Your task to perform on an android device: When is my next meeting? Image 0: 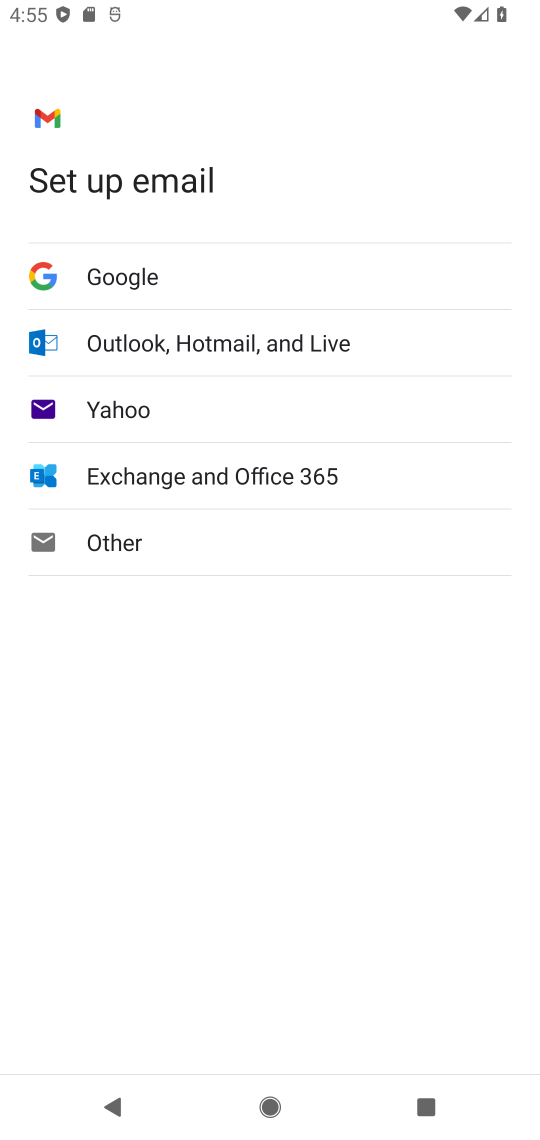
Step 0: press home button
Your task to perform on an android device: When is my next meeting? Image 1: 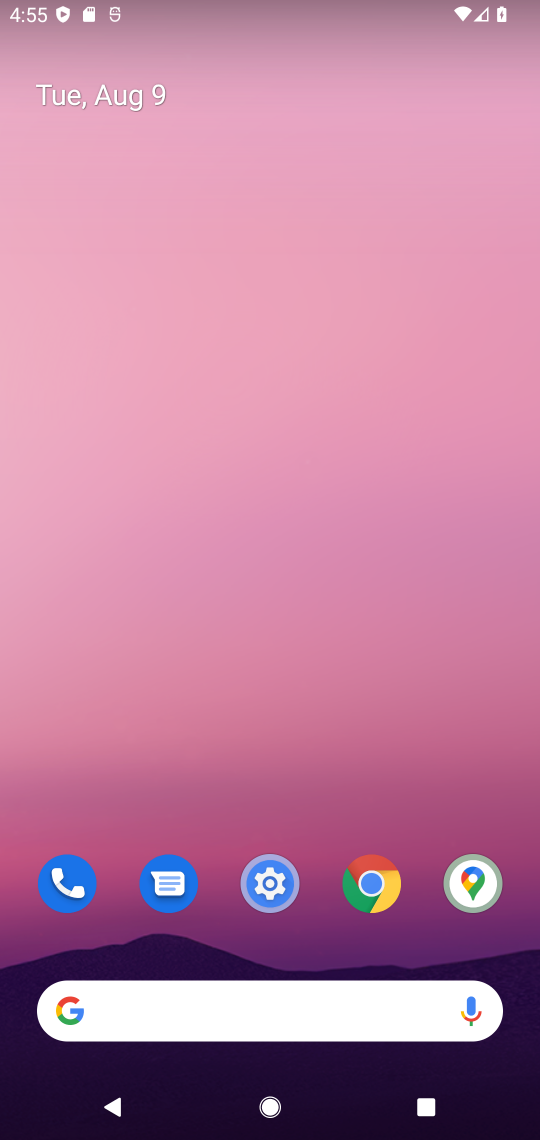
Step 1: drag from (241, 783) to (239, 37)
Your task to perform on an android device: When is my next meeting? Image 2: 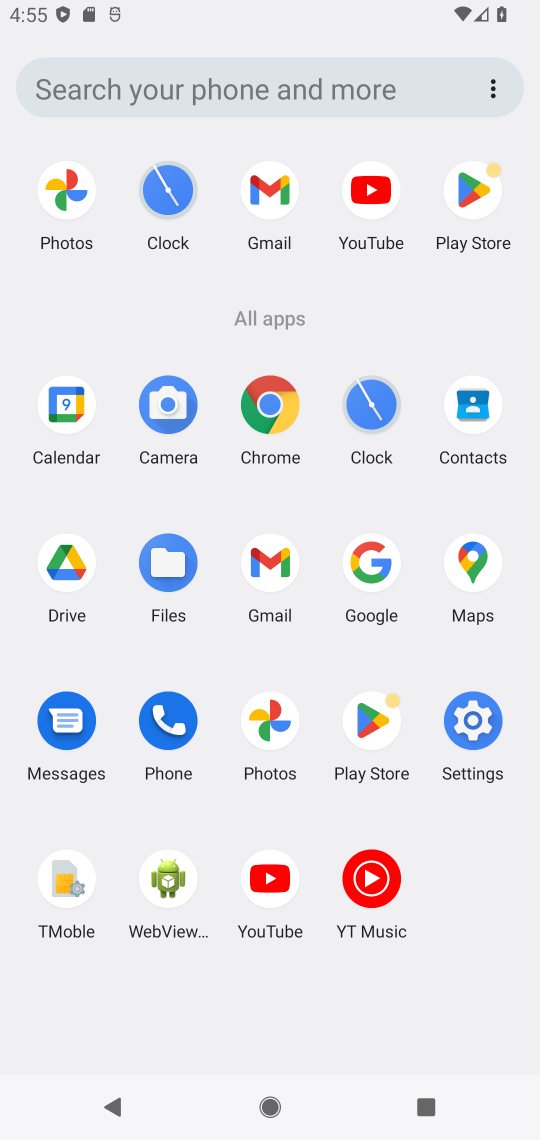
Step 2: click (88, 420)
Your task to perform on an android device: When is my next meeting? Image 3: 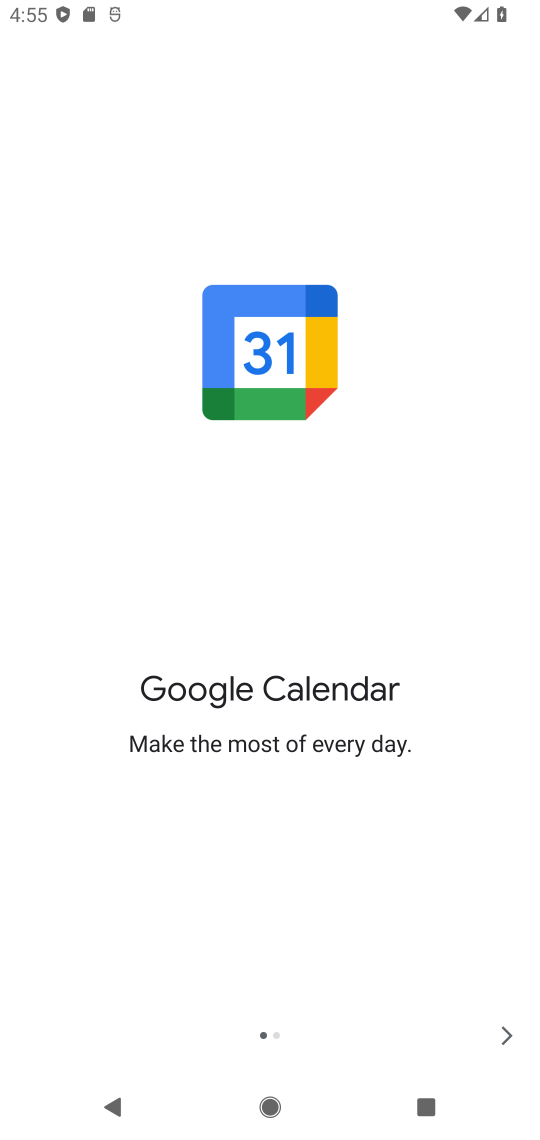
Step 3: click (500, 1023)
Your task to perform on an android device: When is my next meeting? Image 4: 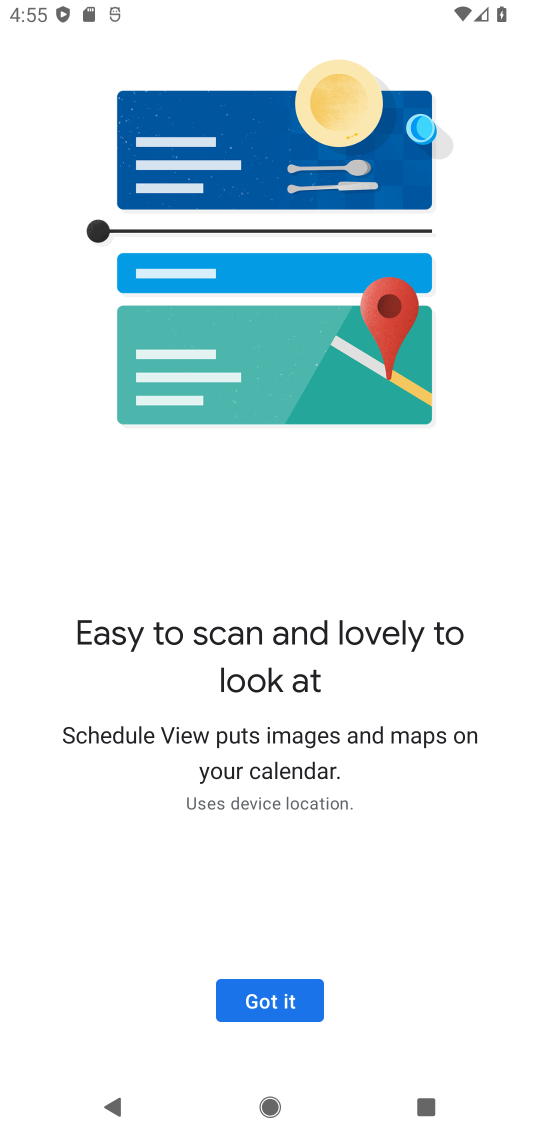
Step 4: click (293, 989)
Your task to perform on an android device: When is my next meeting? Image 5: 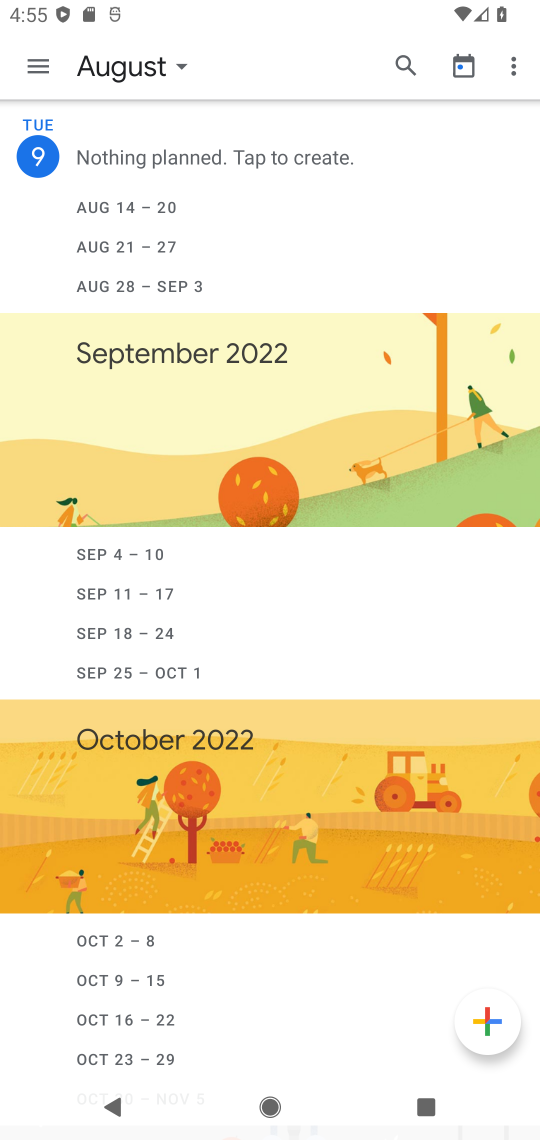
Step 5: click (187, 74)
Your task to perform on an android device: When is my next meeting? Image 6: 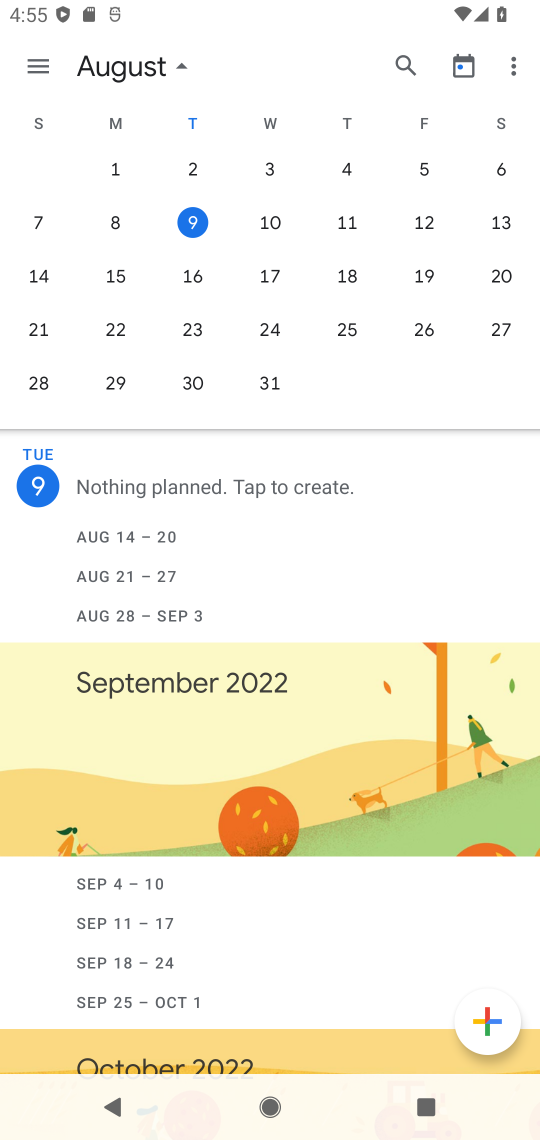
Step 6: click (277, 211)
Your task to perform on an android device: When is my next meeting? Image 7: 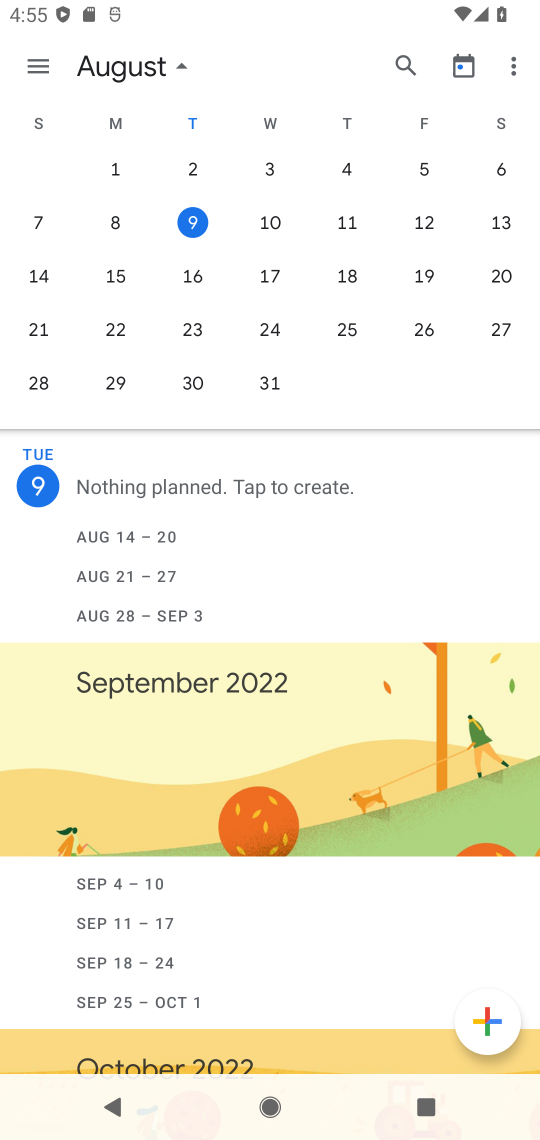
Step 7: click (357, 218)
Your task to perform on an android device: When is my next meeting? Image 8: 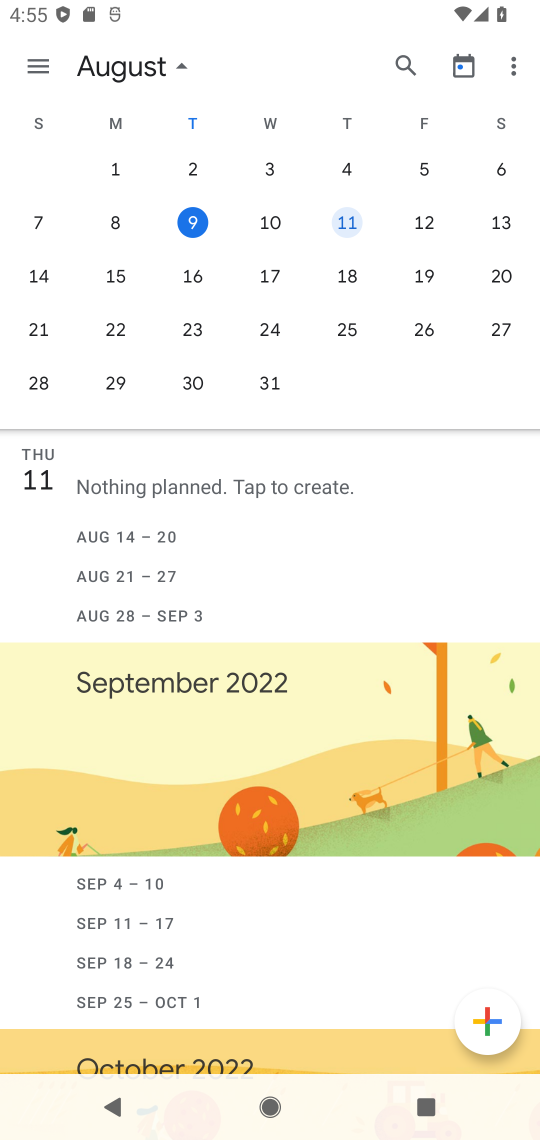
Step 8: click (443, 220)
Your task to perform on an android device: When is my next meeting? Image 9: 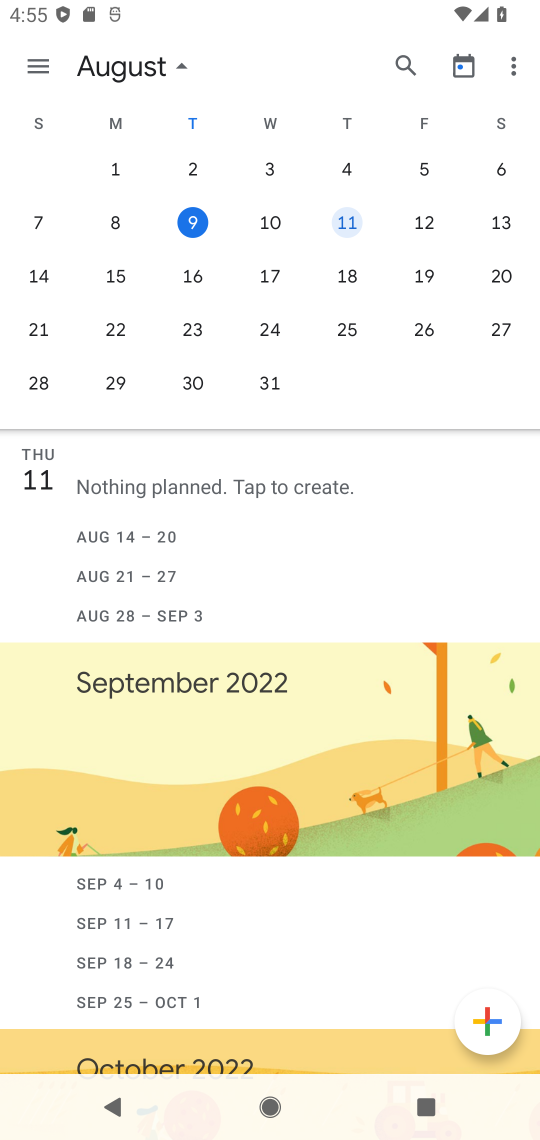
Step 9: click (480, 213)
Your task to perform on an android device: When is my next meeting? Image 10: 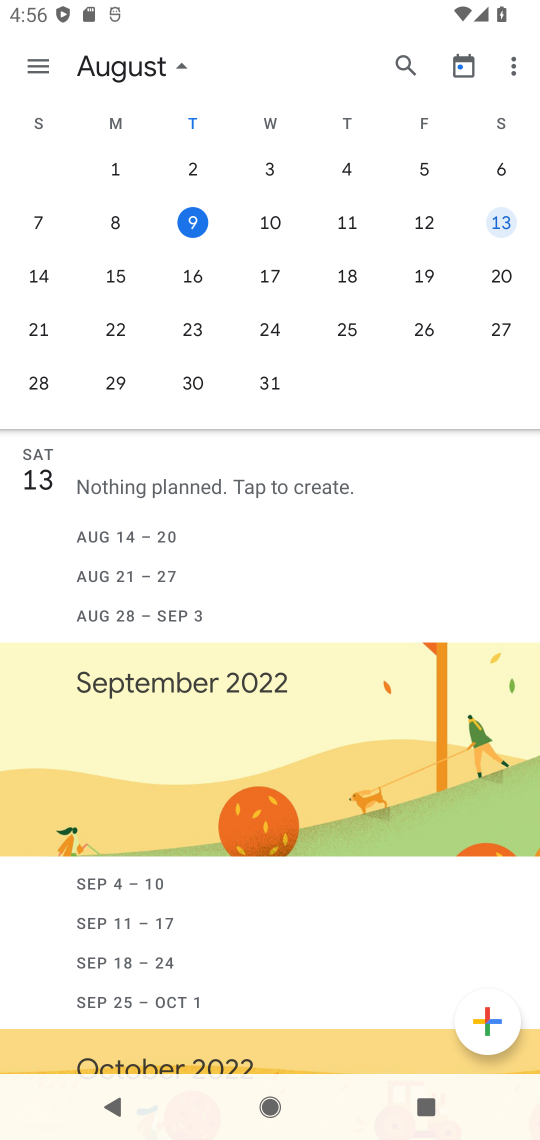
Step 10: click (243, 244)
Your task to perform on an android device: When is my next meeting? Image 11: 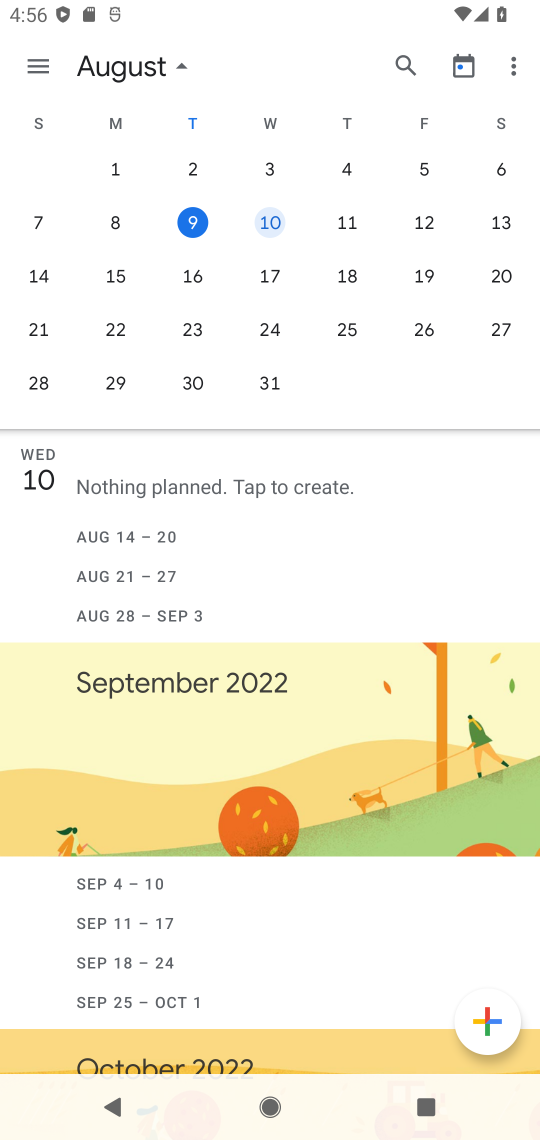
Step 11: click (356, 227)
Your task to perform on an android device: When is my next meeting? Image 12: 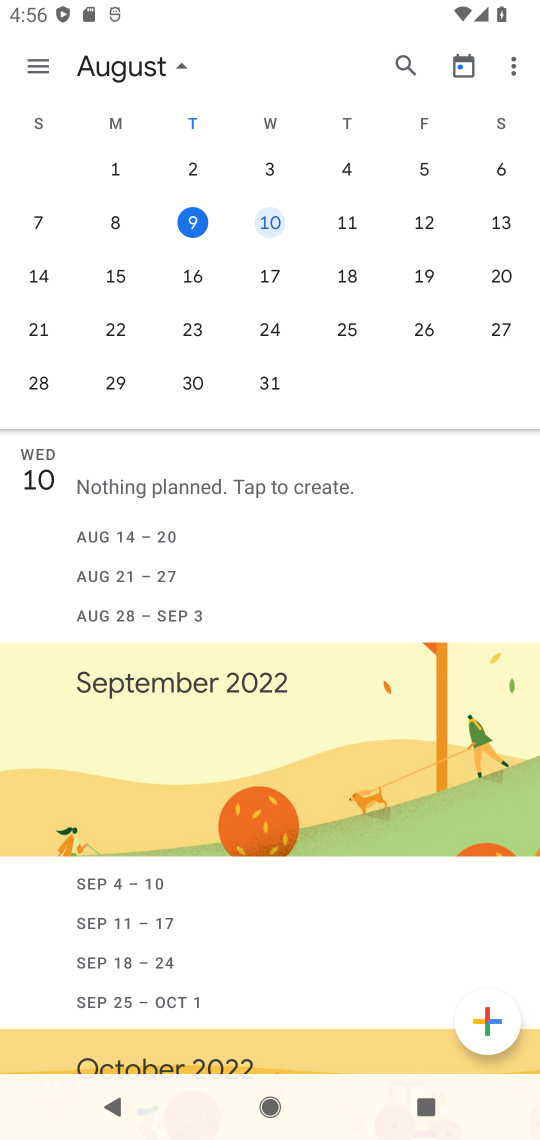
Step 12: click (445, 231)
Your task to perform on an android device: When is my next meeting? Image 13: 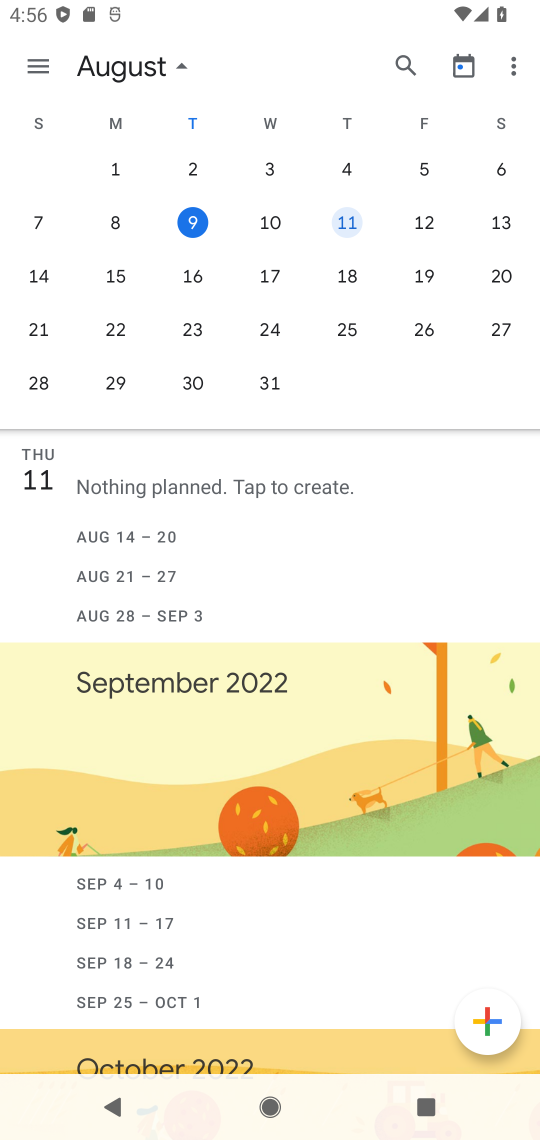
Step 13: click (499, 225)
Your task to perform on an android device: When is my next meeting? Image 14: 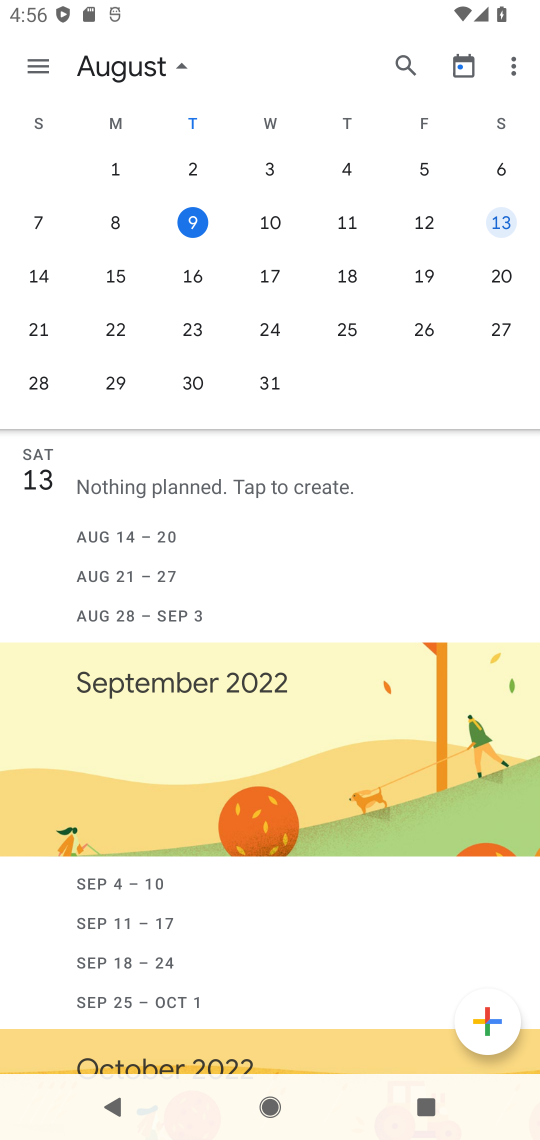
Step 14: task complete